Your task to perform on an android device: Open Google Maps and go to "Timeline" Image 0: 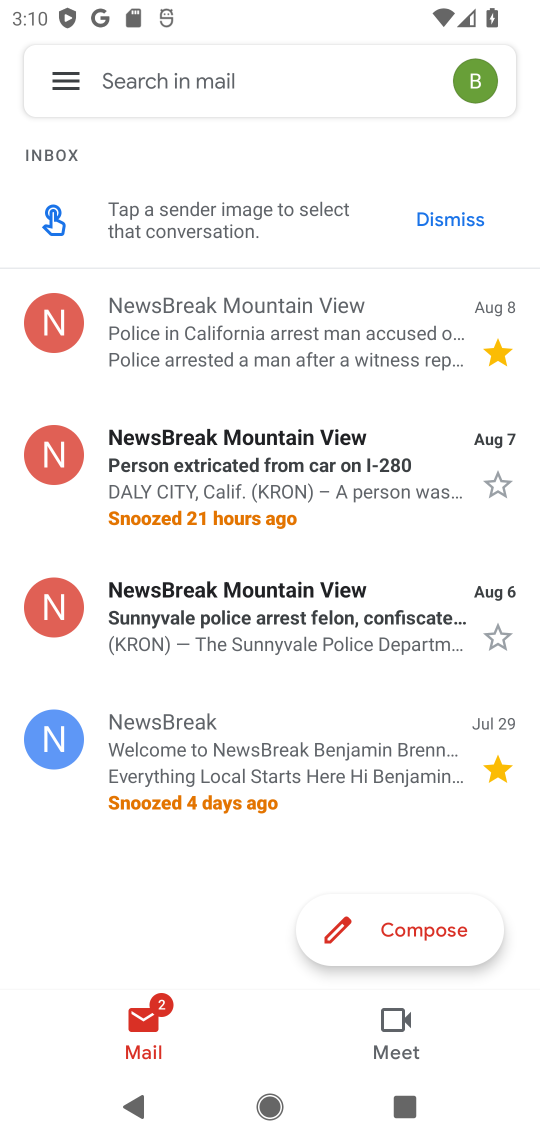
Step 0: press home button
Your task to perform on an android device: Open Google Maps and go to "Timeline" Image 1: 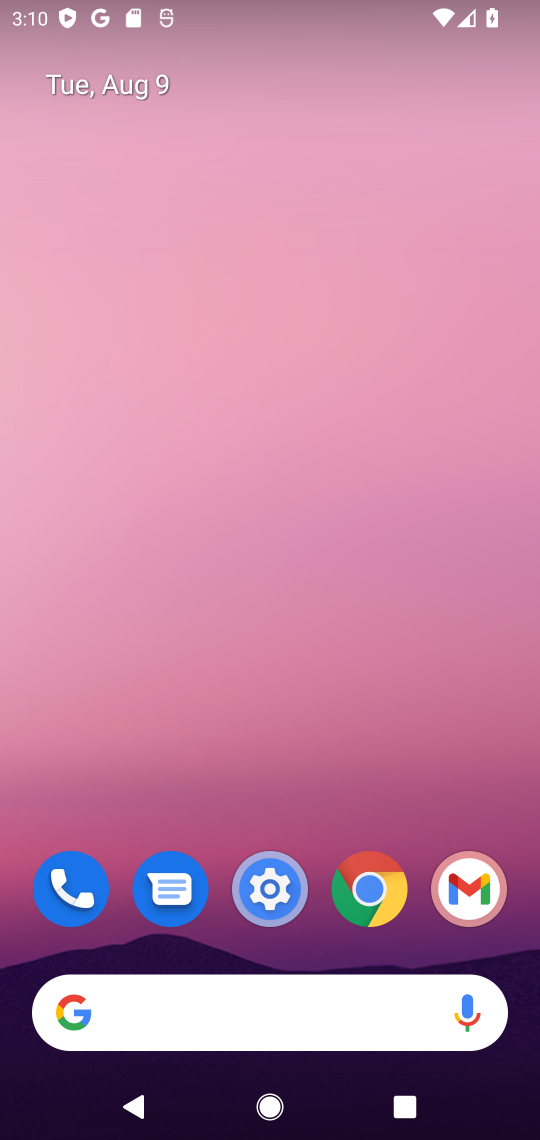
Step 1: drag from (266, 781) to (373, 0)
Your task to perform on an android device: Open Google Maps and go to "Timeline" Image 2: 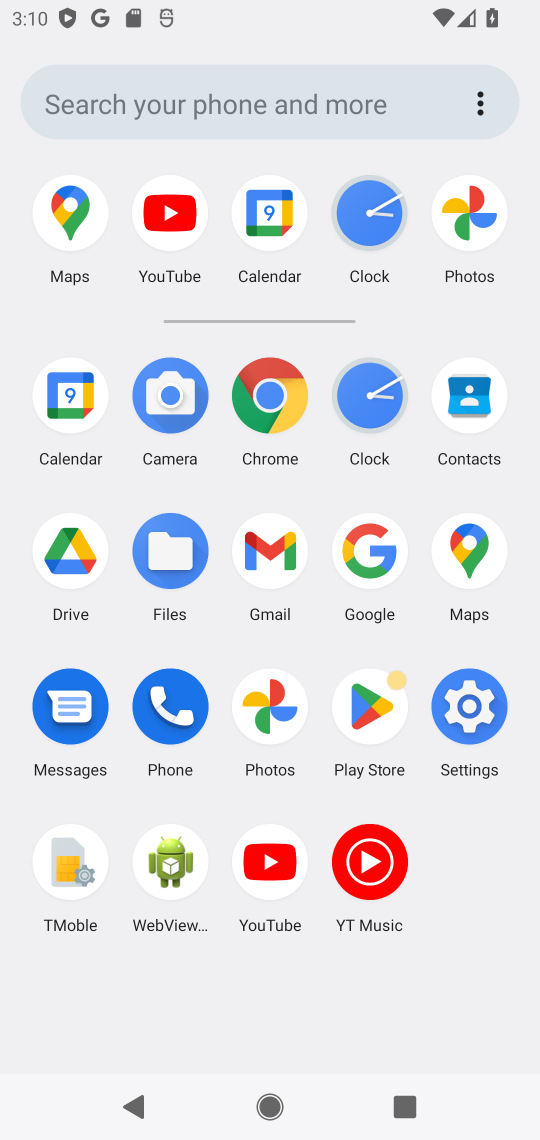
Step 2: click (472, 534)
Your task to perform on an android device: Open Google Maps and go to "Timeline" Image 3: 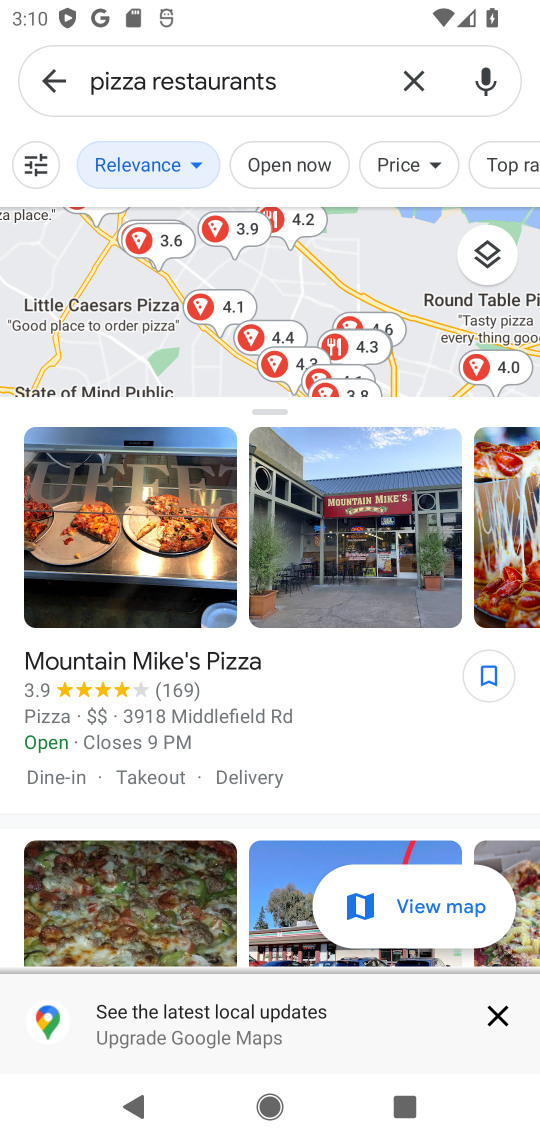
Step 3: click (417, 74)
Your task to perform on an android device: Open Google Maps and go to "Timeline" Image 4: 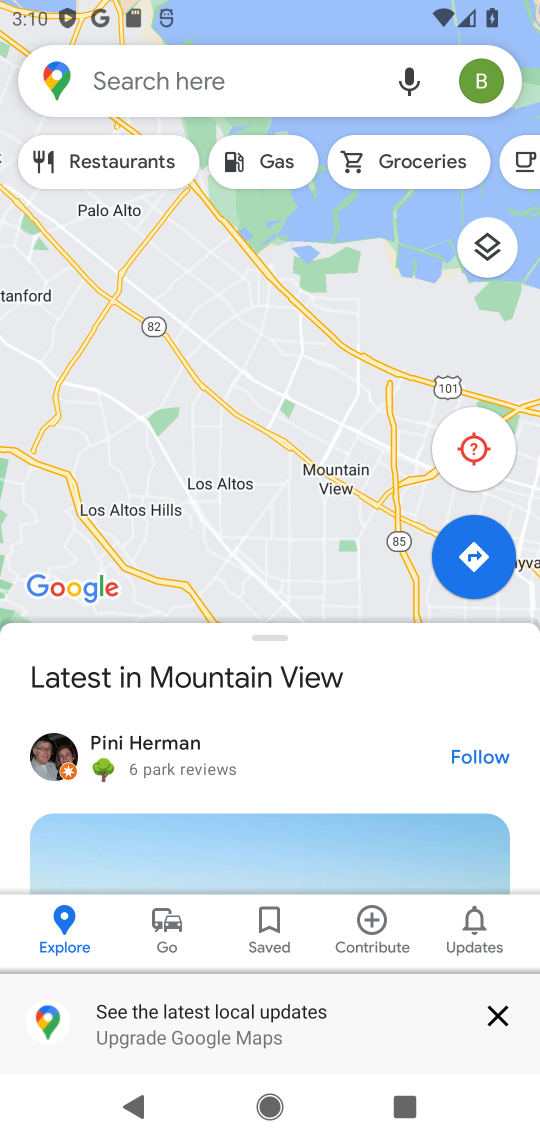
Step 4: click (56, 75)
Your task to perform on an android device: Open Google Maps and go to "Timeline" Image 5: 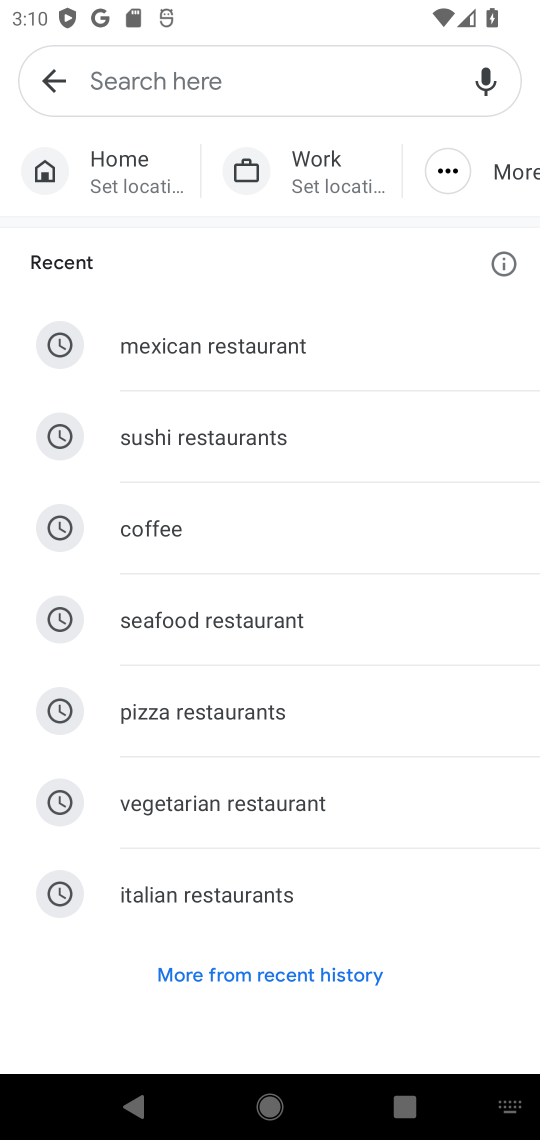
Step 5: click (53, 74)
Your task to perform on an android device: Open Google Maps and go to "Timeline" Image 6: 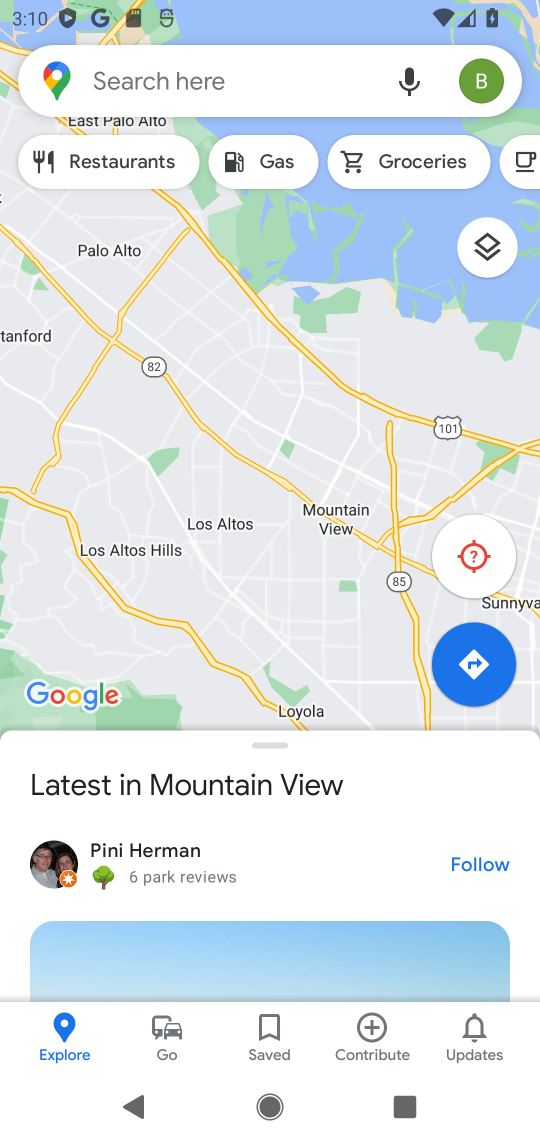
Step 6: click (478, 81)
Your task to perform on an android device: Open Google Maps and go to "Timeline" Image 7: 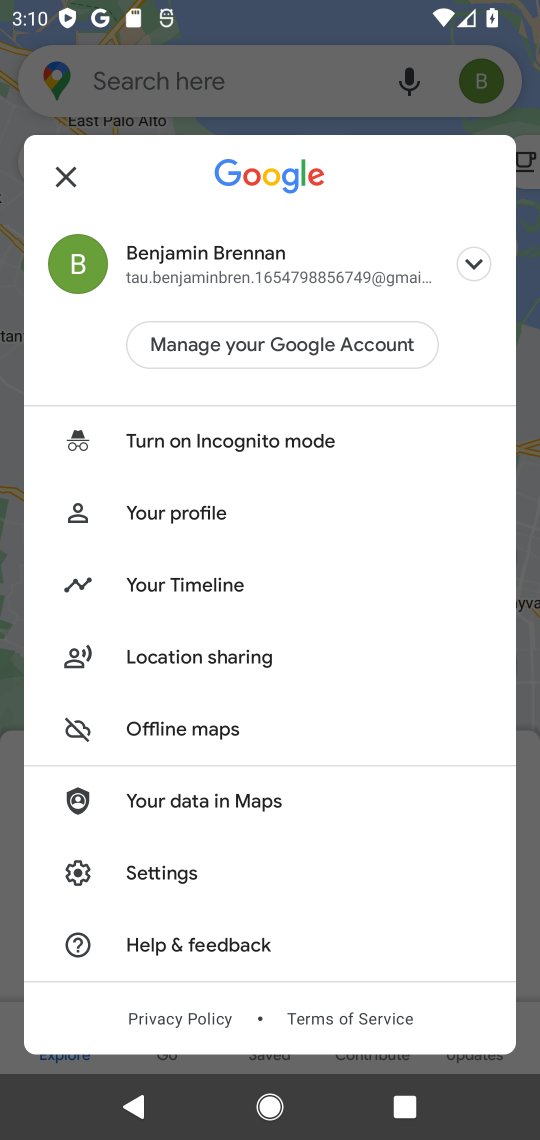
Step 7: click (239, 575)
Your task to perform on an android device: Open Google Maps and go to "Timeline" Image 8: 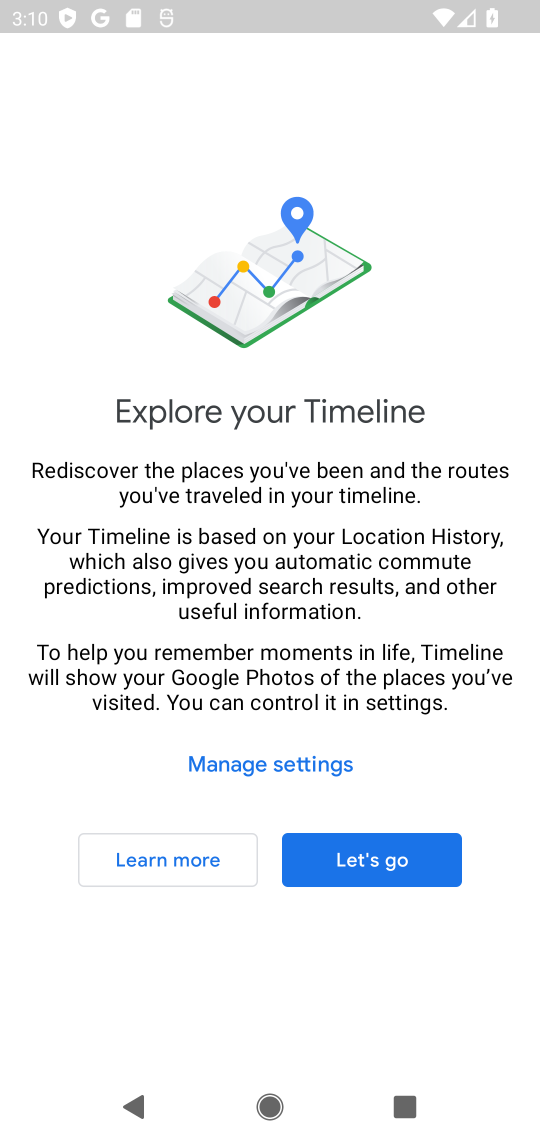
Step 8: click (393, 851)
Your task to perform on an android device: Open Google Maps and go to "Timeline" Image 9: 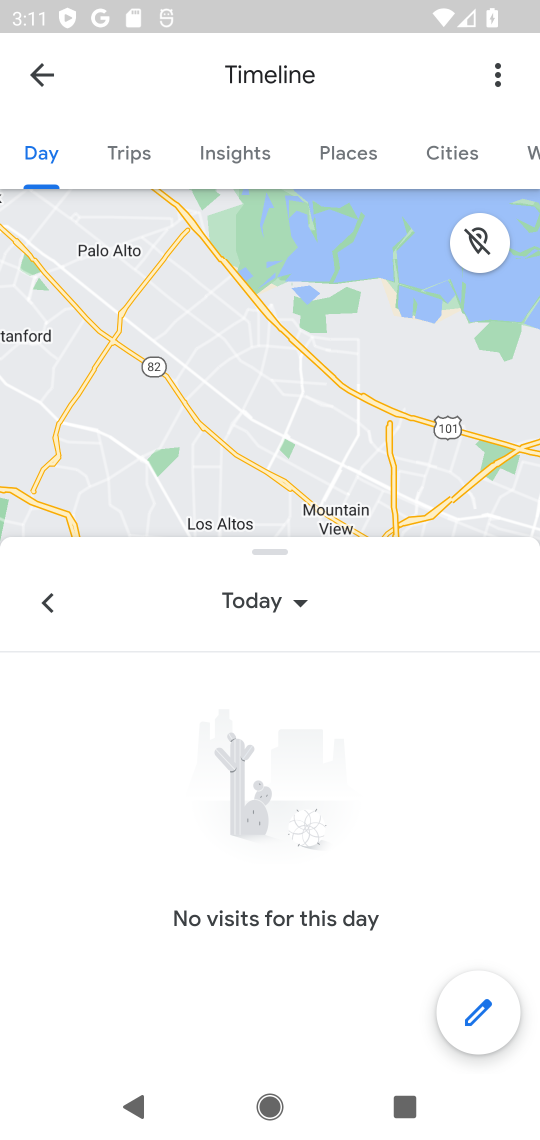
Step 9: task complete